Your task to perform on an android device: find snoozed emails in the gmail app Image 0: 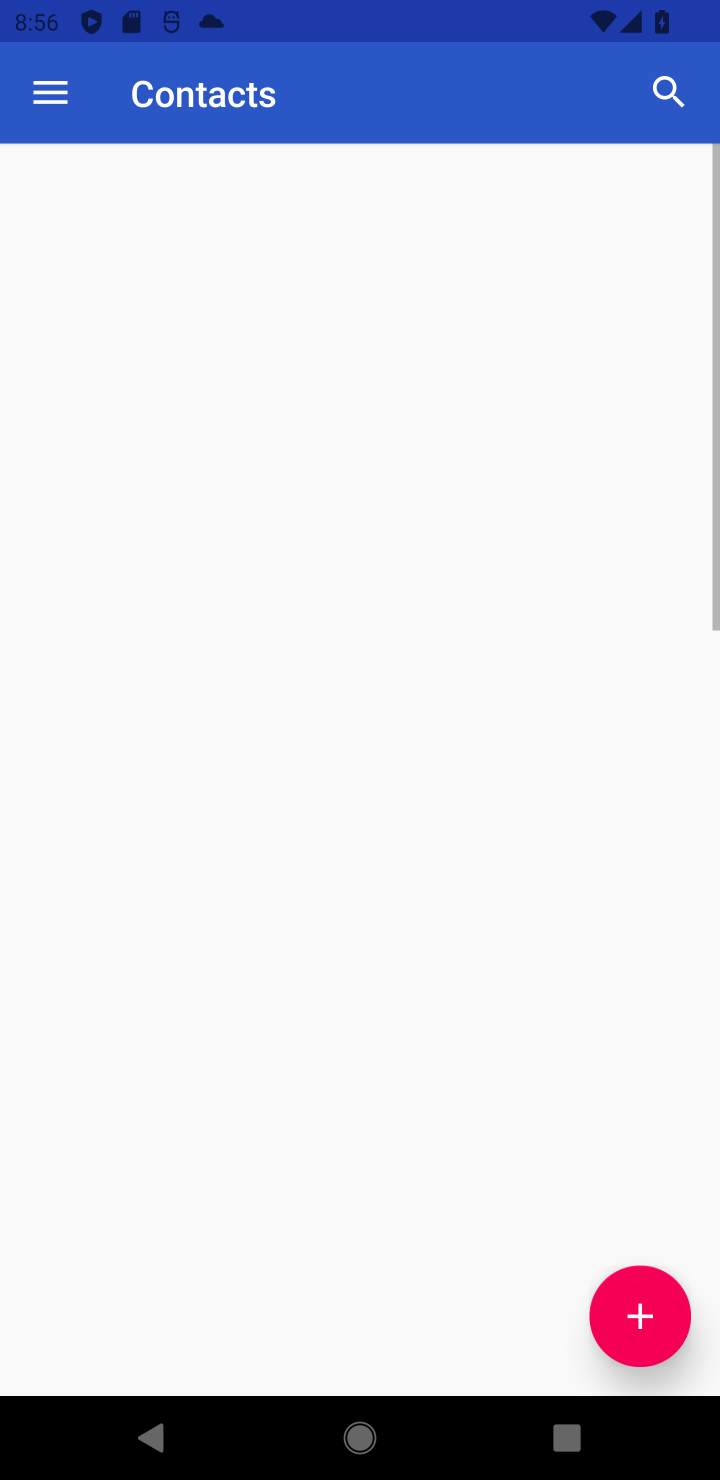
Step 0: press home button
Your task to perform on an android device: find snoozed emails in the gmail app Image 1: 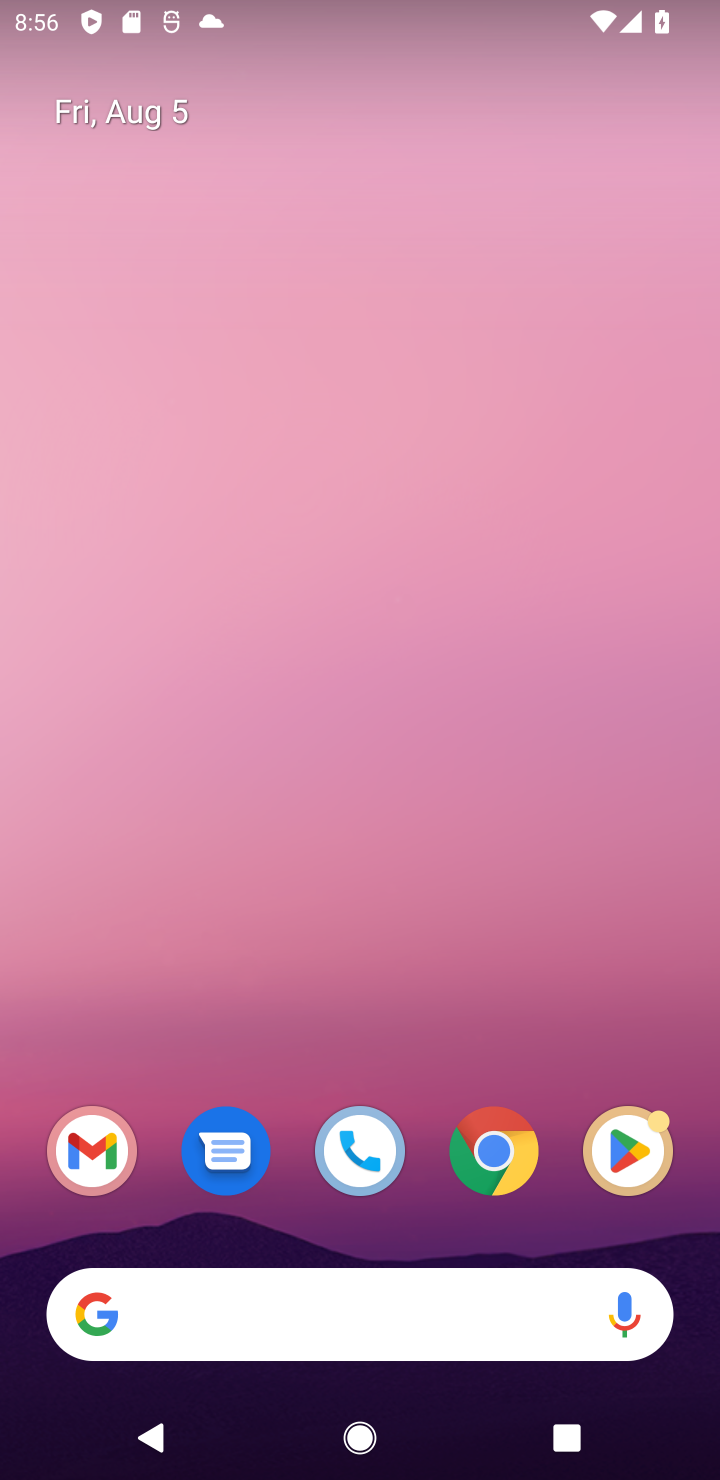
Step 1: click (82, 1163)
Your task to perform on an android device: find snoozed emails in the gmail app Image 2: 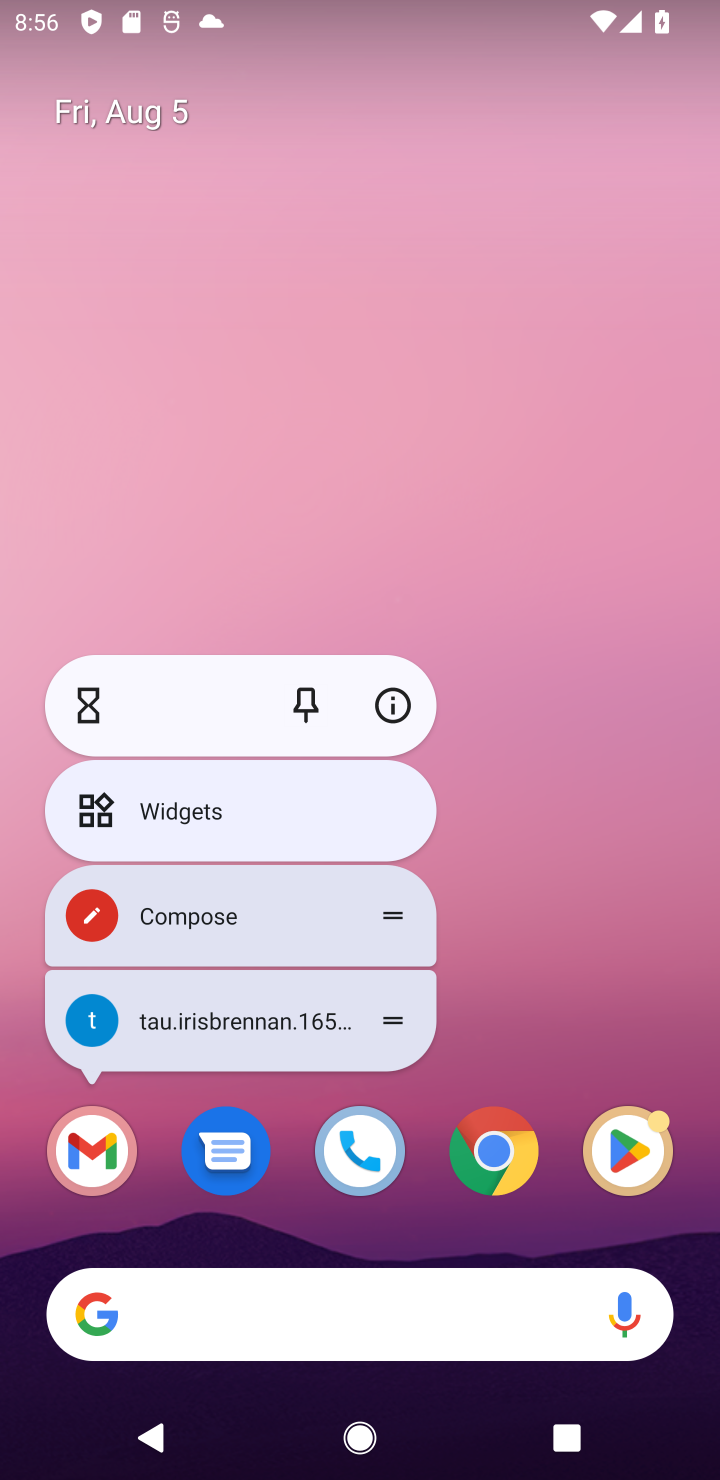
Step 2: click (102, 1163)
Your task to perform on an android device: find snoozed emails in the gmail app Image 3: 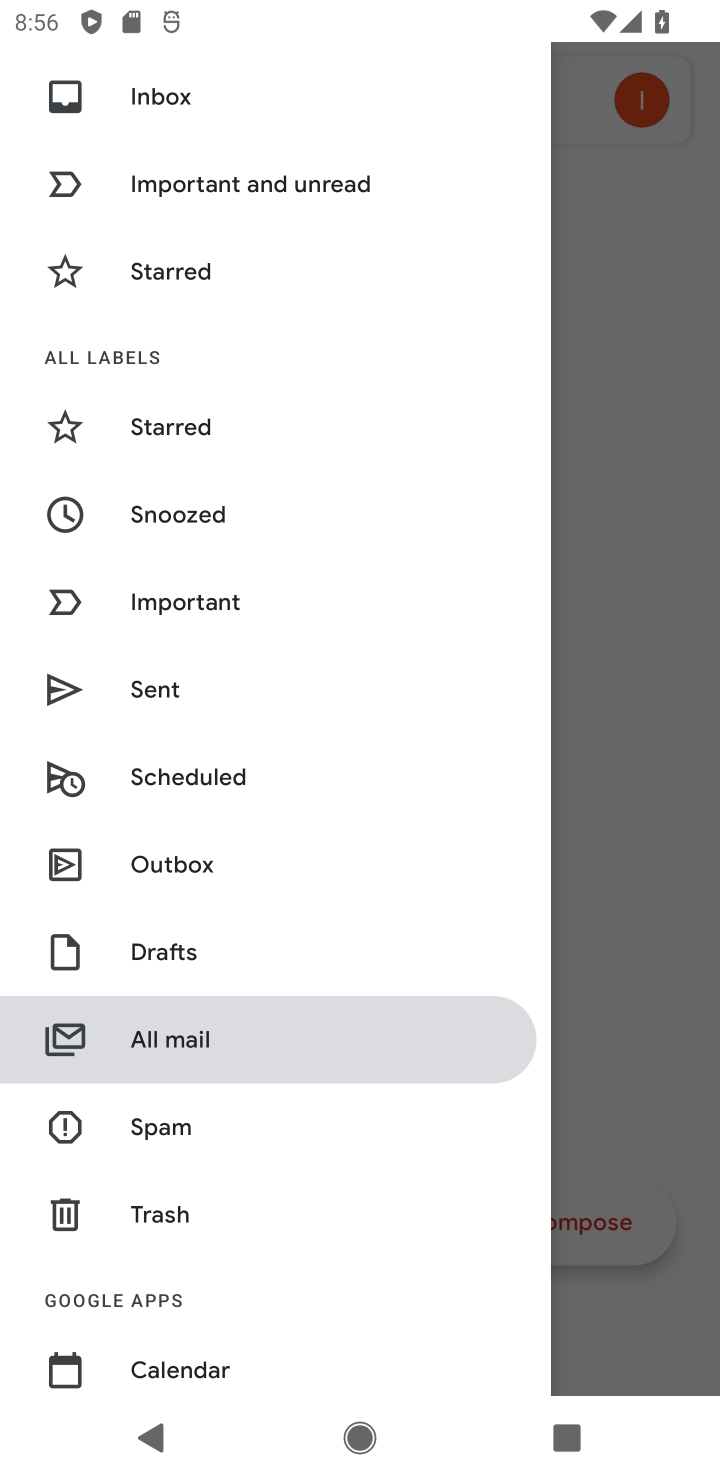
Step 3: click (222, 521)
Your task to perform on an android device: find snoozed emails in the gmail app Image 4: 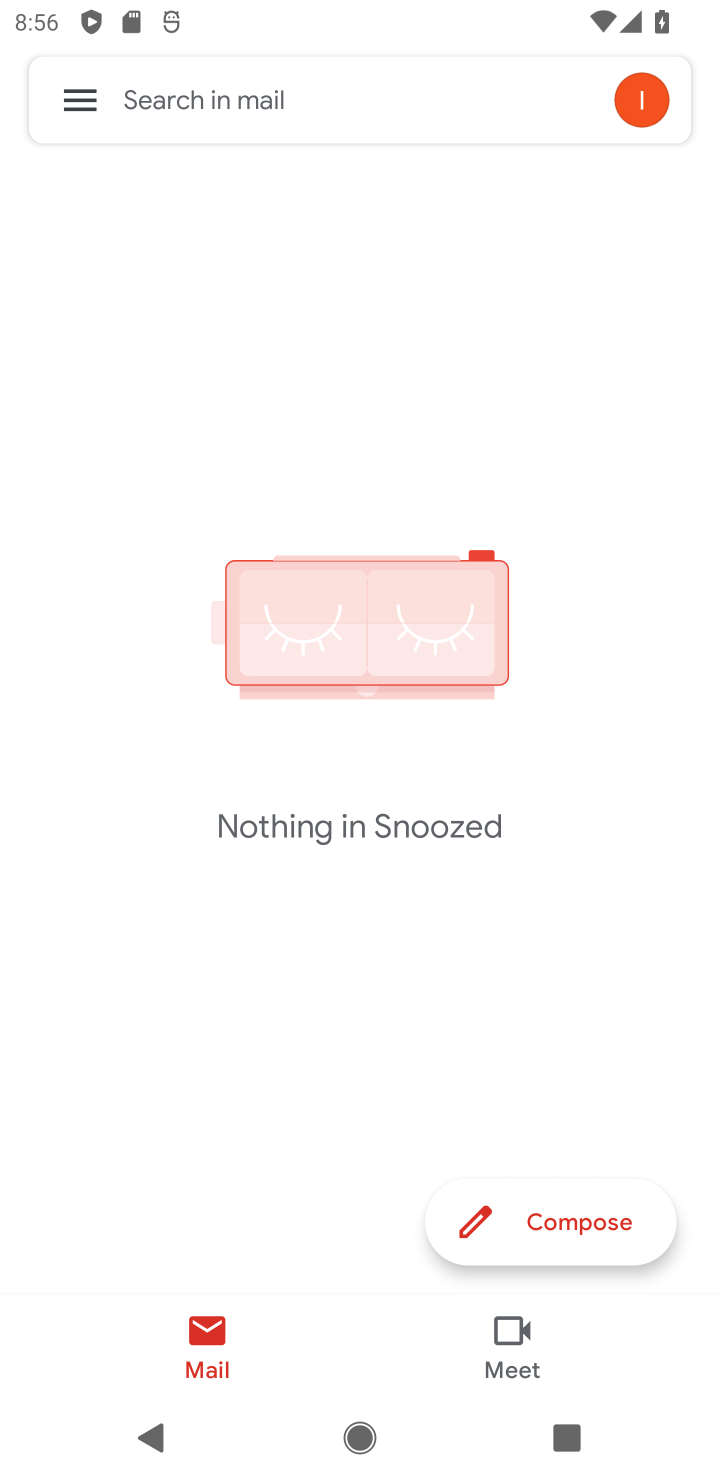
Step 4: task complete